Your task to perform on an android device: Toggle the flashlight Image 0: 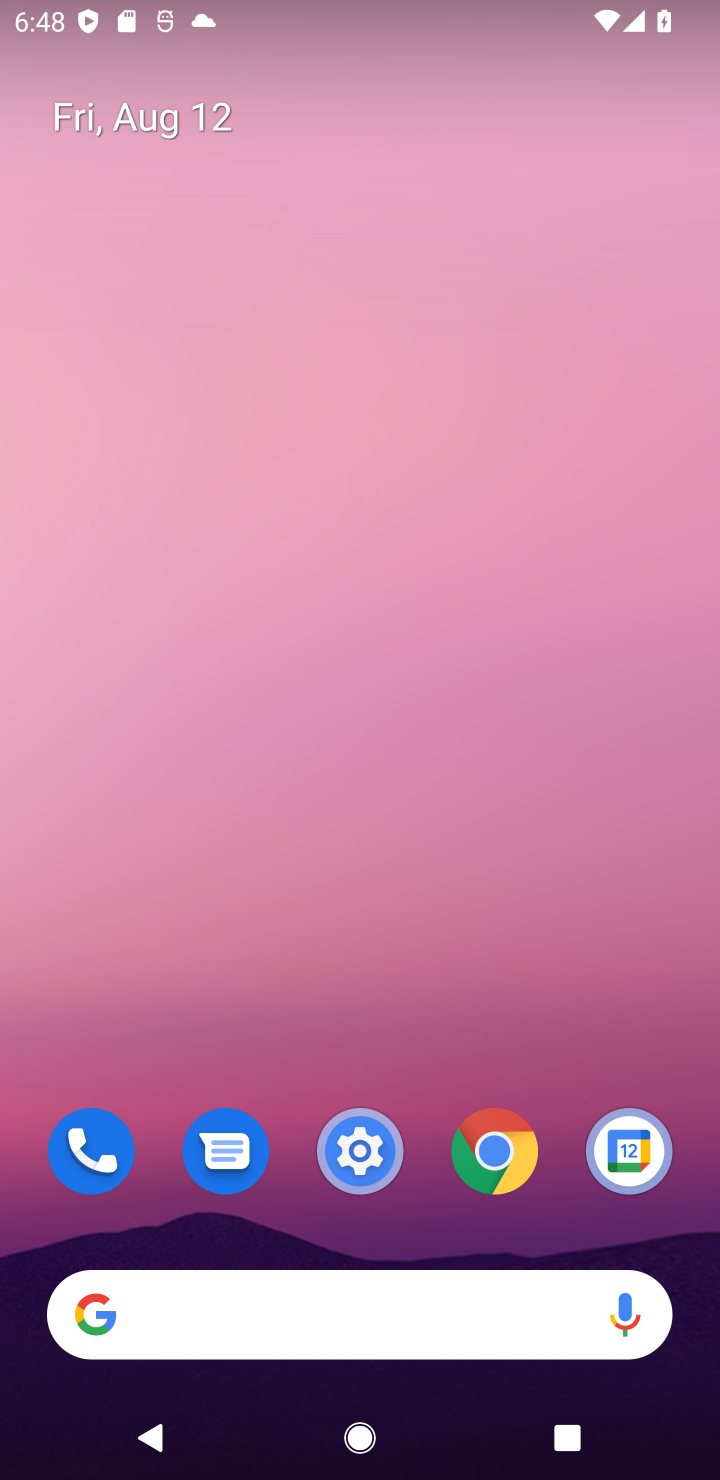
Step 0: drag from (375, 889) to (434, 14)
Your task to perform on an android device: Toggle the flashlight Image 1: 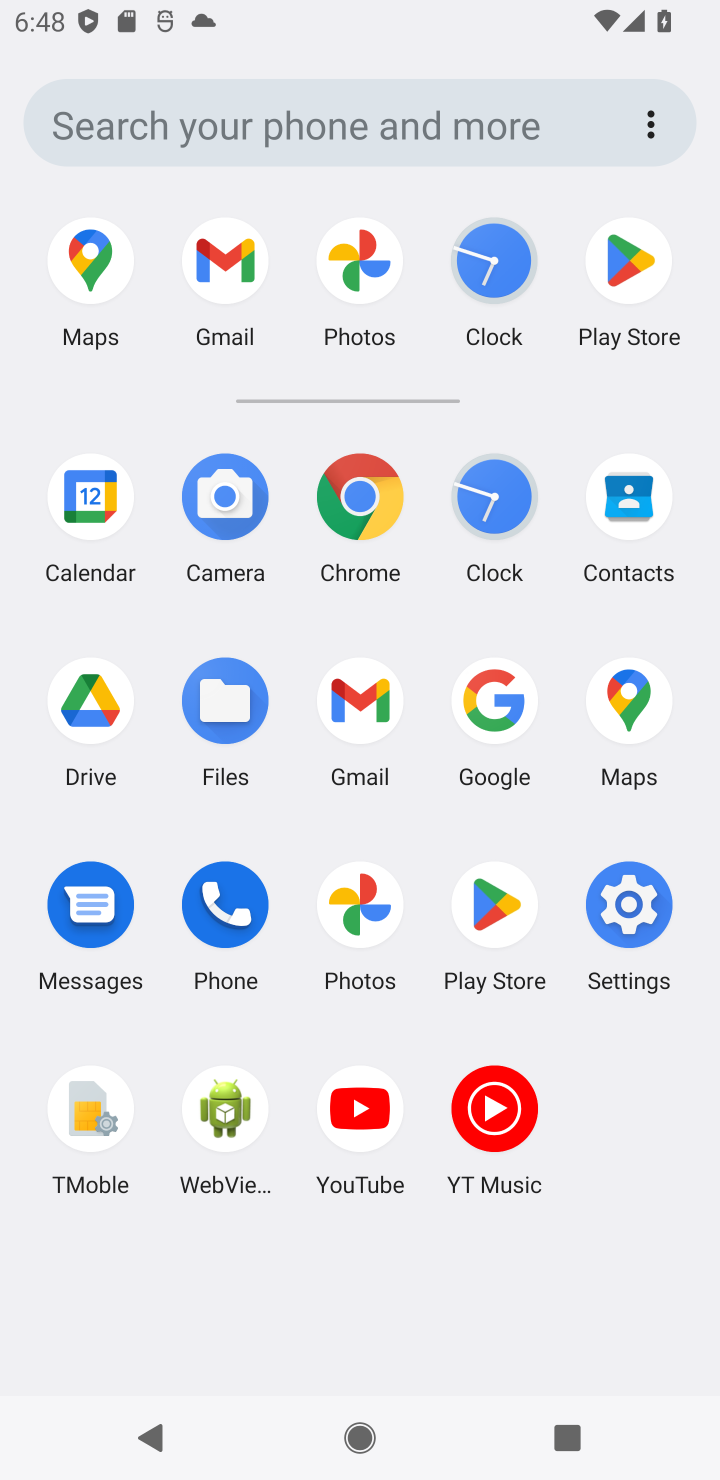
Step 1: click (636, 924)
Your task to perform on an android device: Toggle the flashlight Image 2: 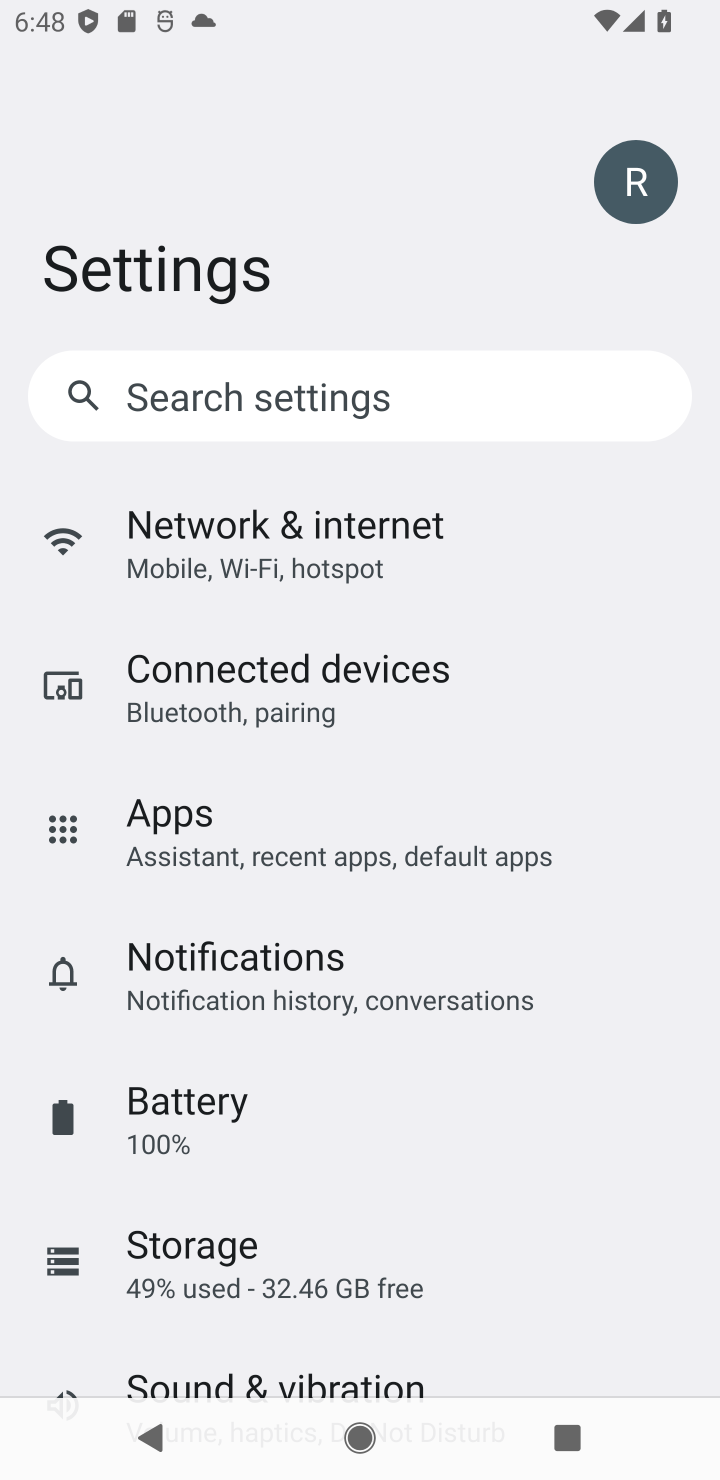
Step 2: drag from (472, 1235) to (485, 505)
Your task to perform on an android device: Toggle the flashlight Image 3: 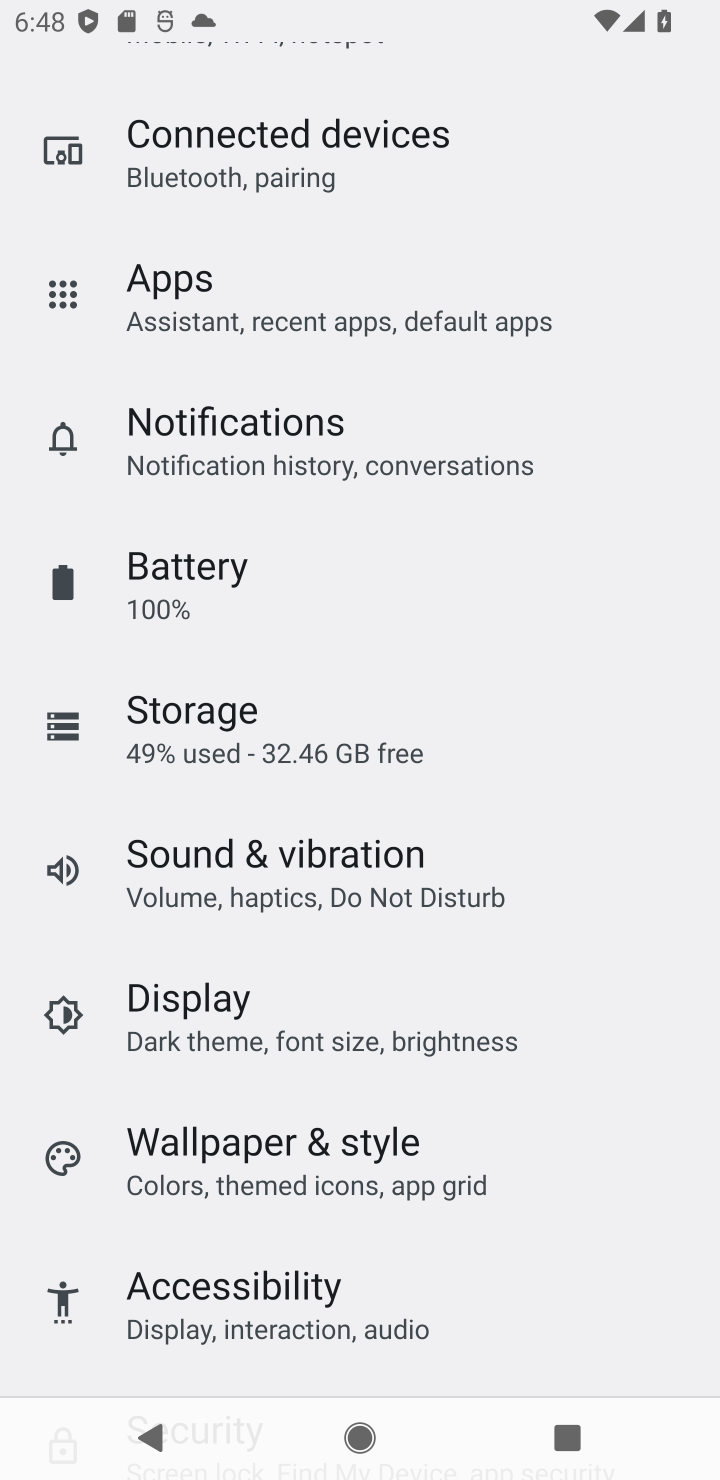
Step 3: click (284, 1046)
Your task to perform on an android device: Toggle the flashlight Image 4: 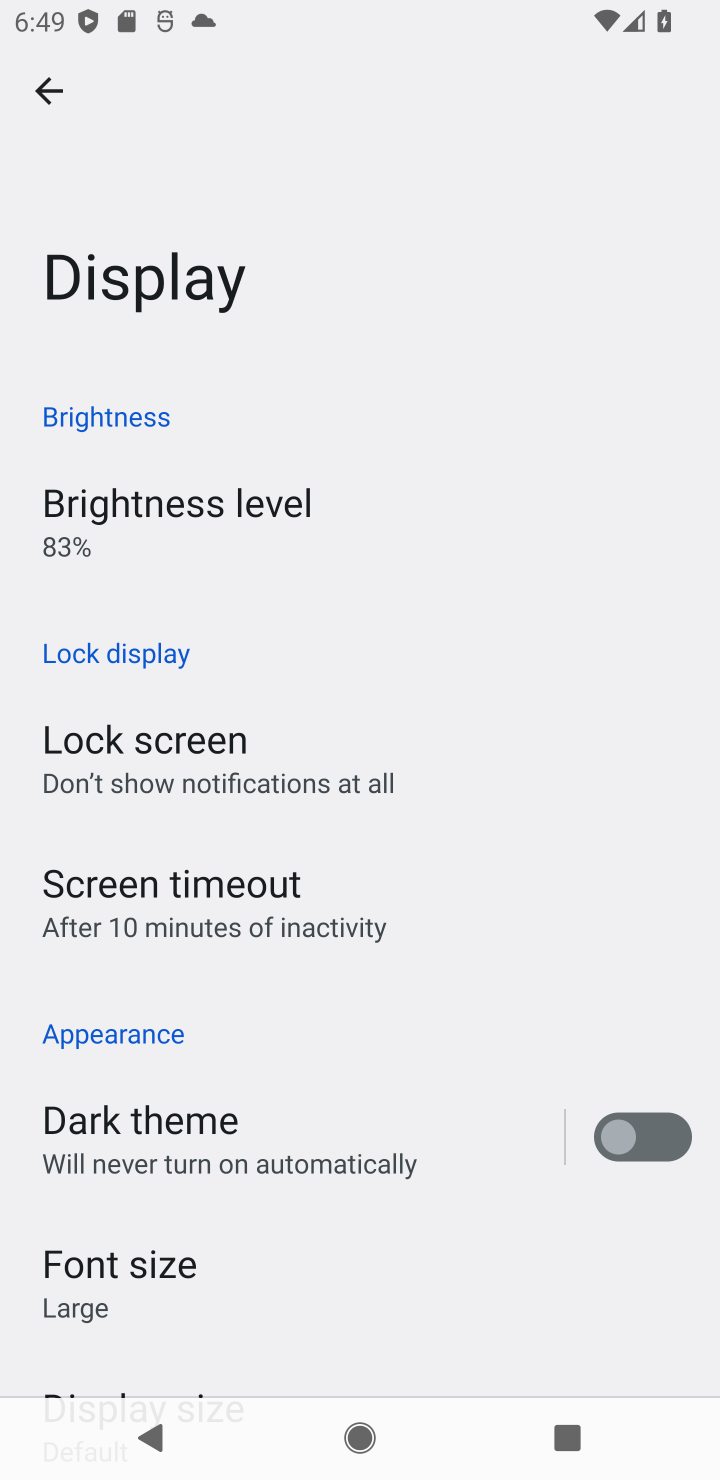
Step 4: click (258, 936)
Your task to perform on an android device: Toggle the flashlight Image 5: 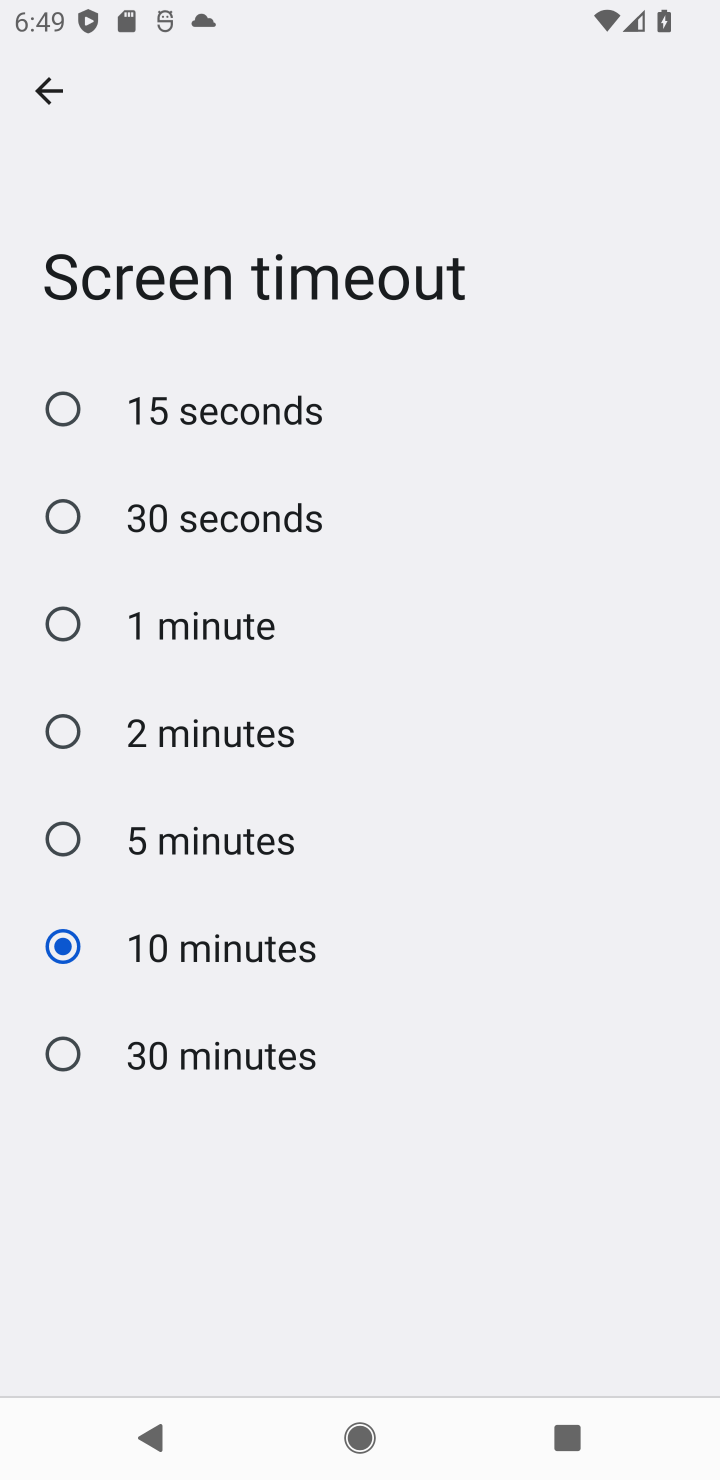
Step 5: task complete